Your task to perform on an android device: Search for Italian restaurants on Maps Image 0: 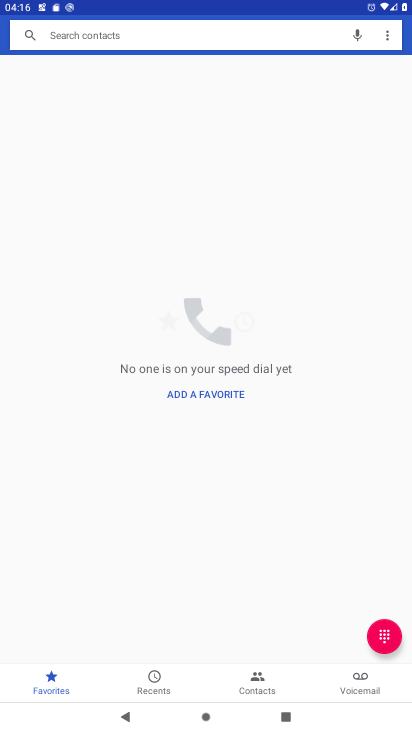
Step 0: press home button
Your task to perform on an android device: Search for Italian restaurants on Maps Image 1: 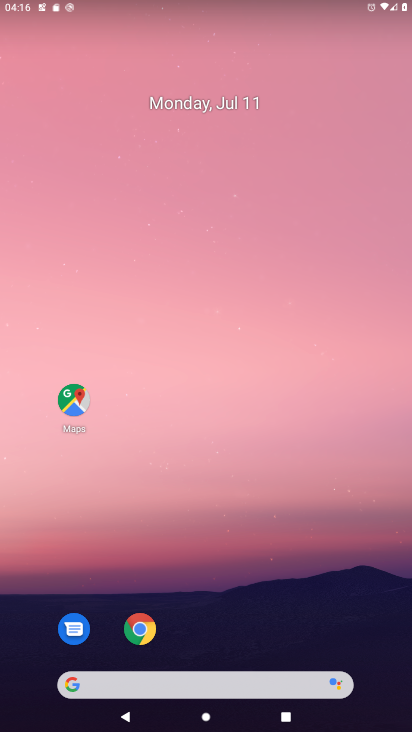
Step 1: click (65, 412)
Your task to perform on an android device: Search for Italian restaurants on Maps Image 2: 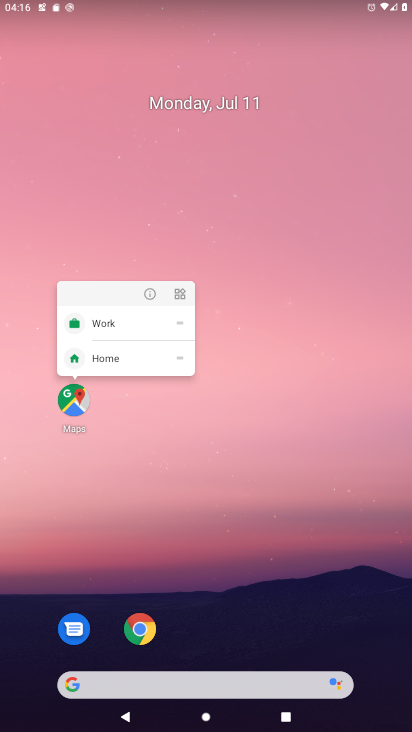
Step 2: click (80, 384)
Your task to perform on an android device: Search for Italian restaurants on Maps Image 3: 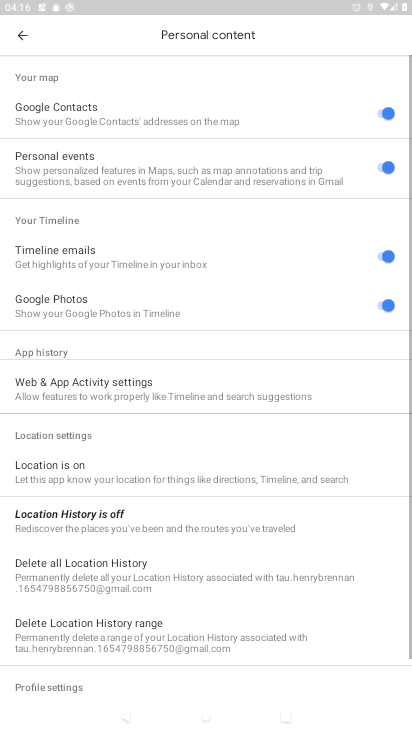
Step 3: click (15, 33)
Your task to perform on an android device: Search for Italian restaurants on Maps Image 4: 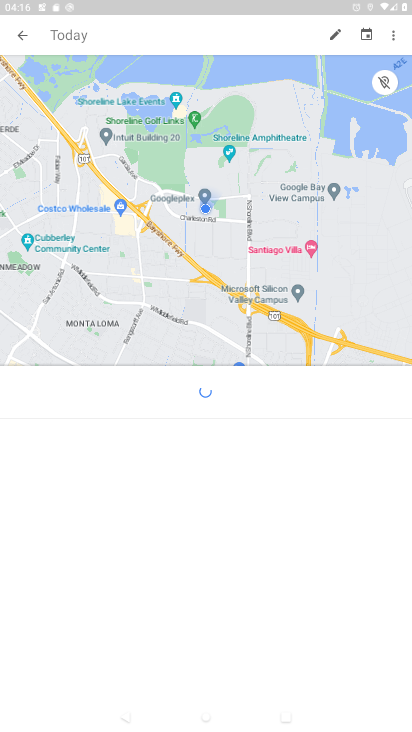
Step 4: click (25, 31)
Your task to perform on an android device: Search for Italian restaurants on Maps Image 5: 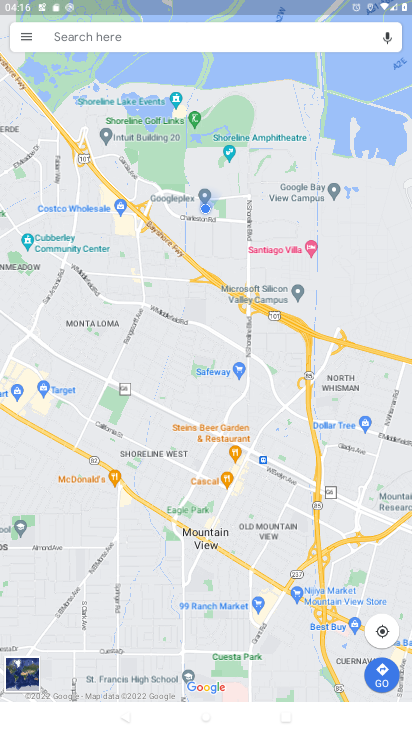
Step 5: click (176, 33)
Your task to perform on an android device: Search for Italian restaurants on Maps Image 6: 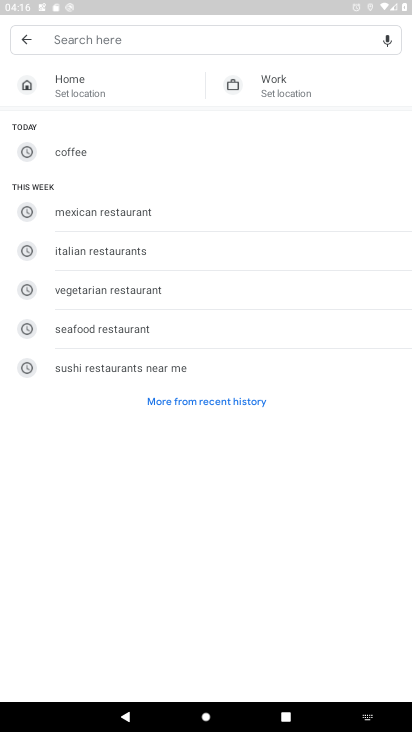
Step 6: type "italian restaurants"
Your task to perform on an android device: Search for Italian restaurants on Maps Image 7: 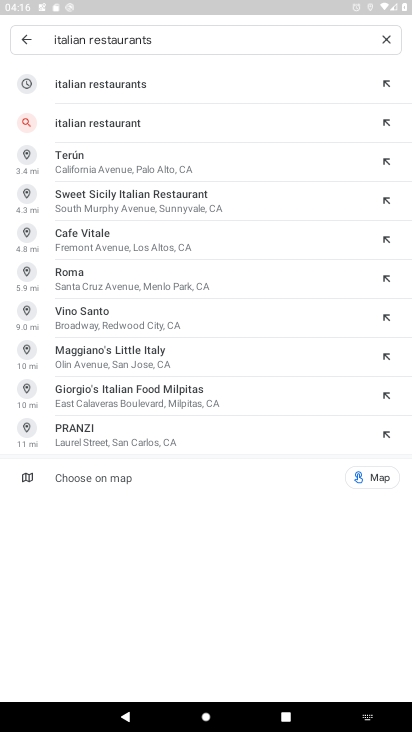
Step 7: click (114, 86)
Your task to perform on an android device: Search for Italian restaurants on Maps Image 8: 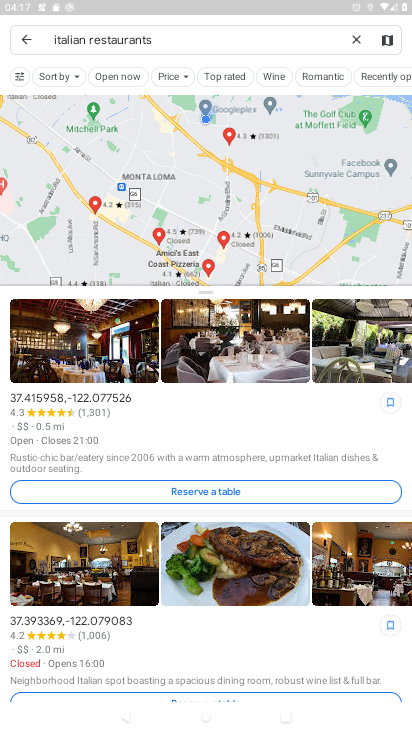
Step 8: task complete